Your task to perform on an android device: toggle data saver in the chrome app Image 0: 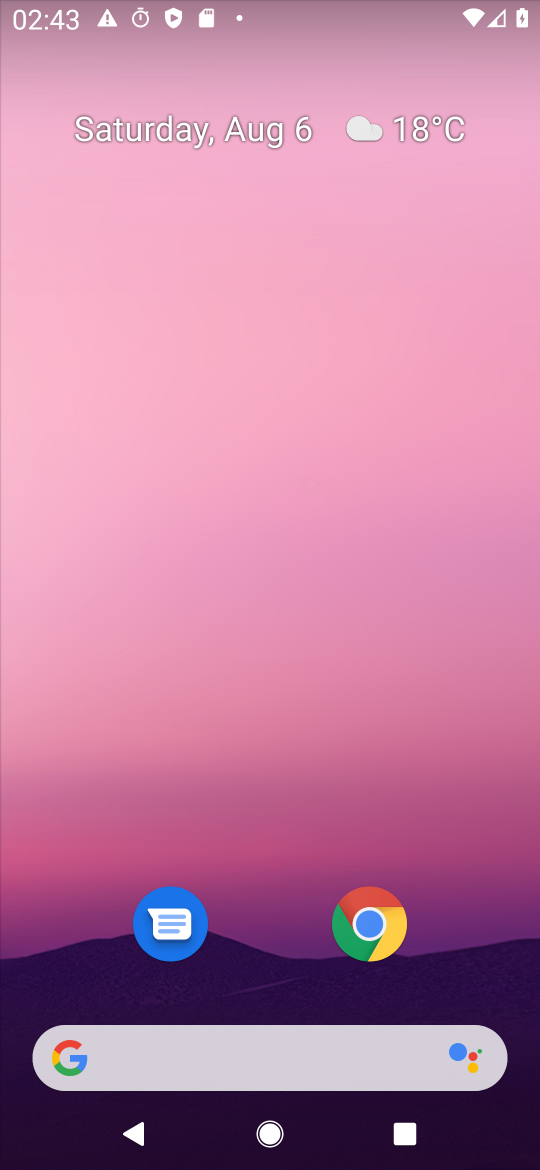
Step 0: drag from (286, 1023) to (209, 227)
Your task to perform on an android device: toggle data saver in the chrome app Image 1: 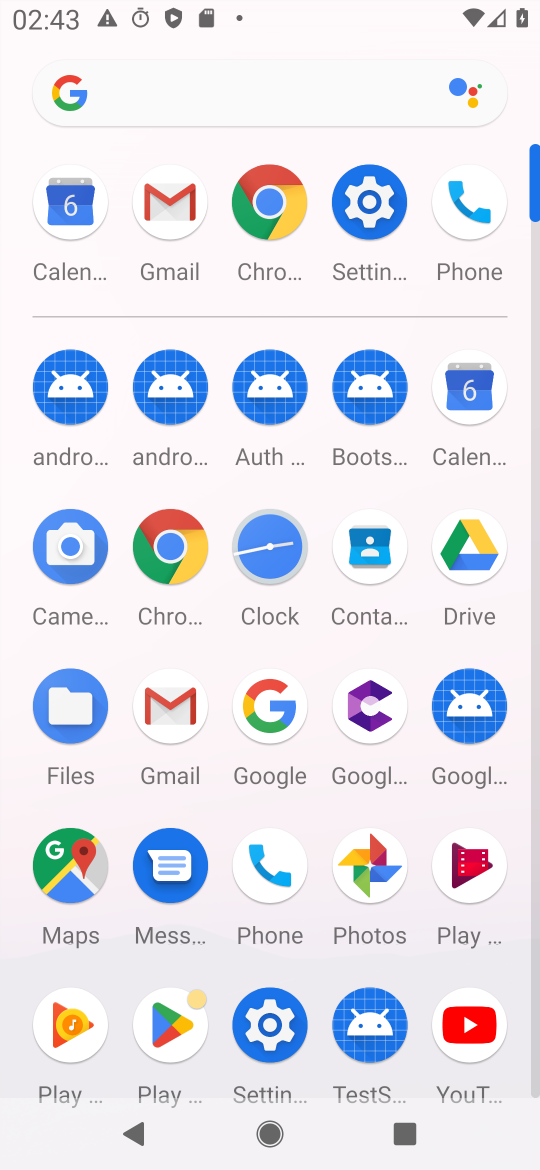
Step 1: click (166, 549)
Your task to perform on an android device: toggle data saver in the chrome app Image 2: 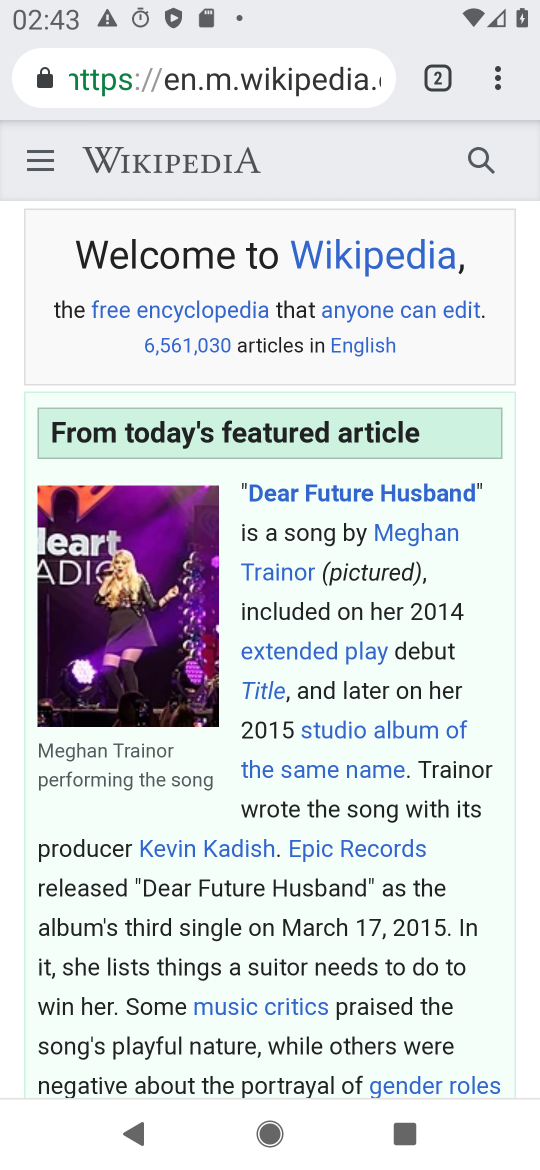
Step 2: click (491, 72)
Your task to perform on an android device: toggle data saver in the chrome app Image 3: 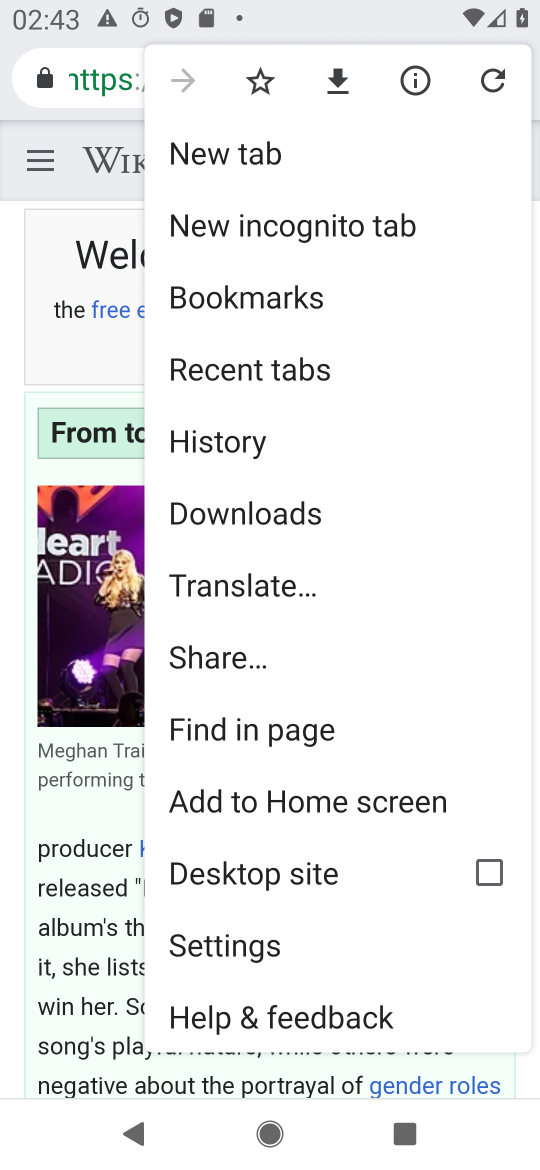
Step 3: click (250, 941)
Your task to perform on an android device: toggle data saver in the chrome app Image 4: 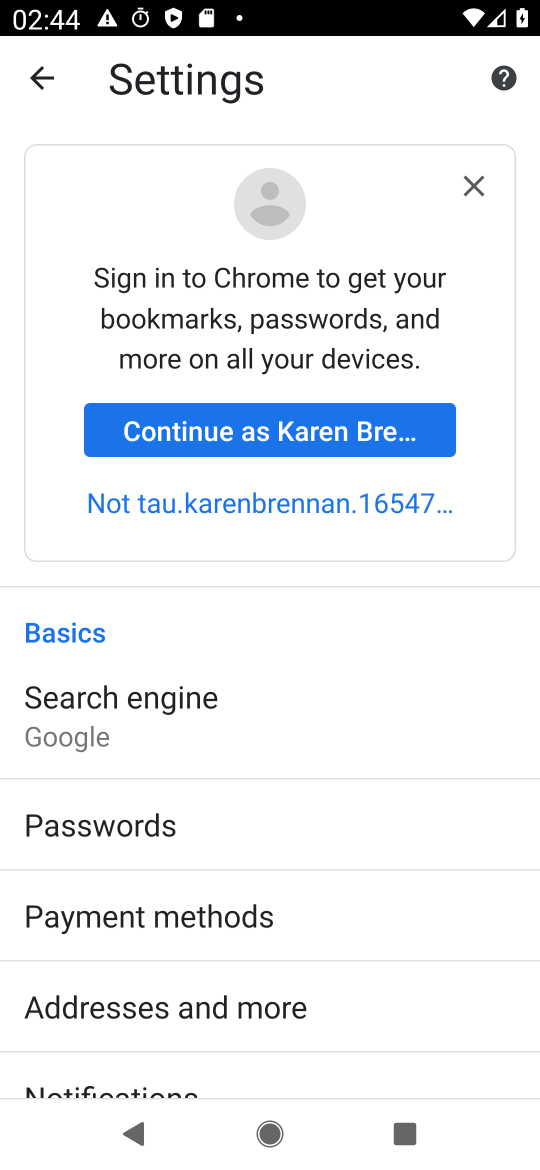
Step 4: drag from (379, 1056) to (378, 396)
Your task to perform on an android device: toggle data saver in the chrome app Image 5: 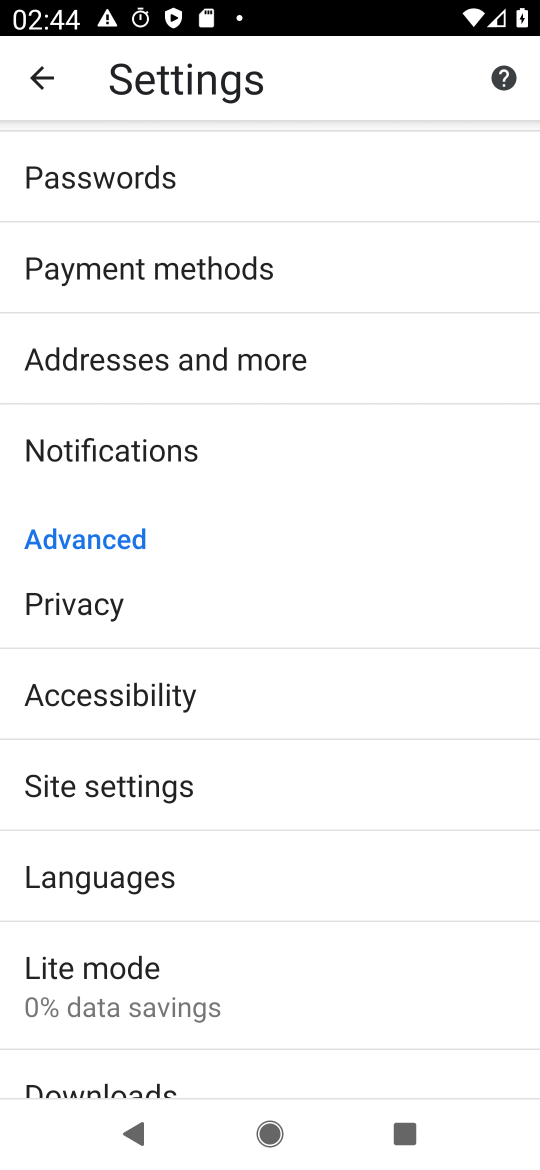
Step 5: click (141, 979)
Your task to perform on an android device: toggle data saver in the chrome app Image 6: 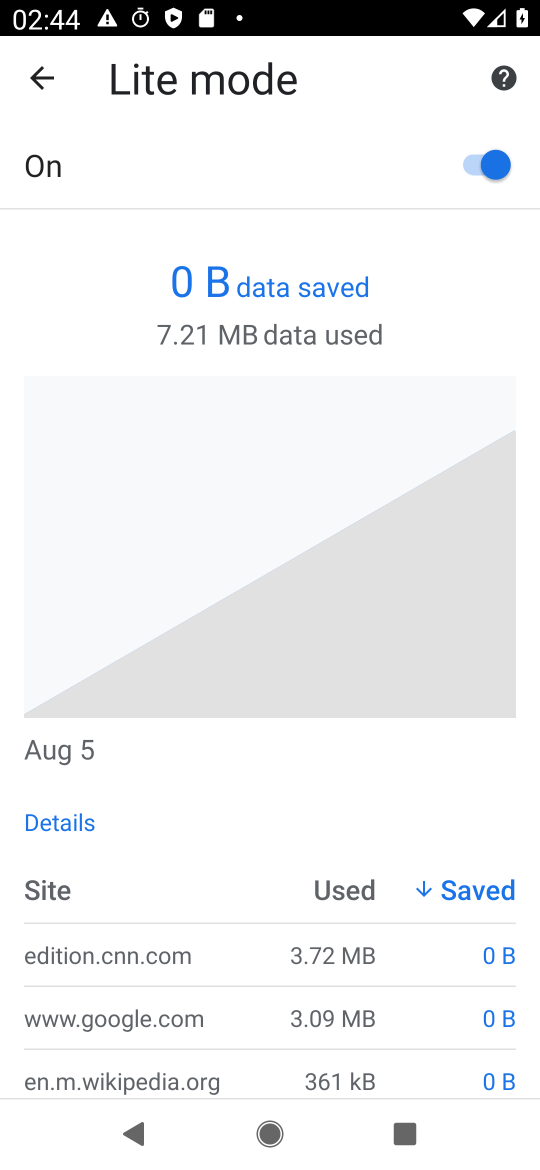
Step 6: click (484, 172)
Your task to perform on an android device: toggle data saver in the chrome app Image 7: 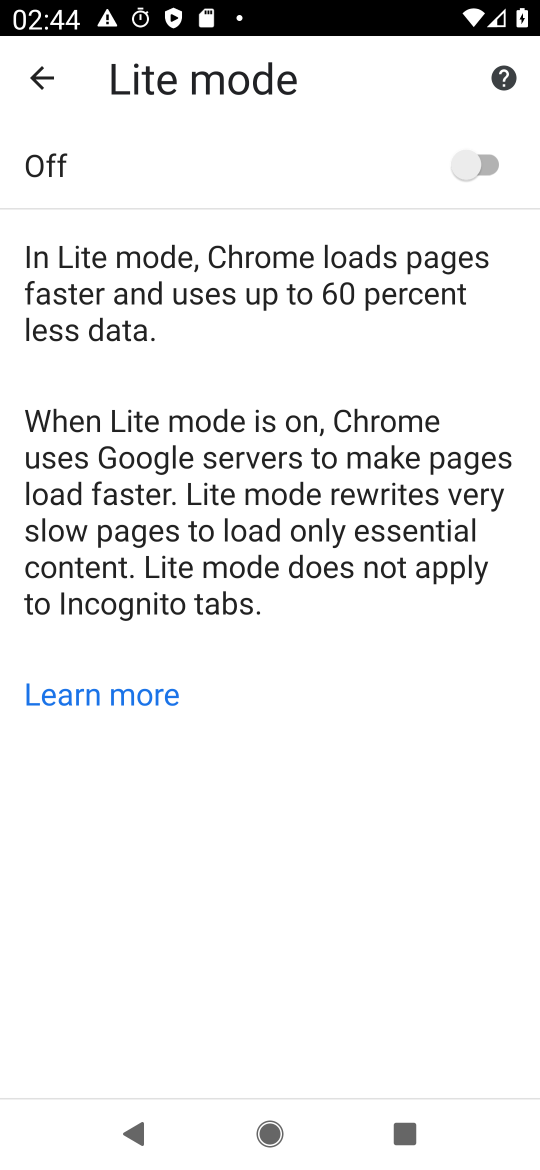
Step 7: task complete